Your task to perform on an android device: Open Wikipedia Image 0: 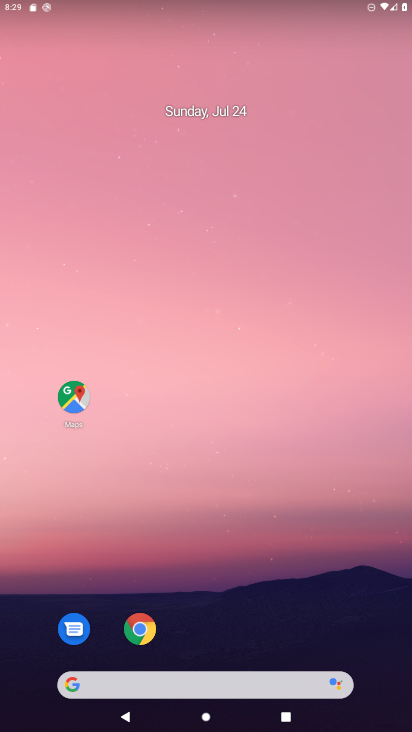
Step 0: drag from (403, 644) to (167, 12)
Your task to perform on an android device: Open Wikipedia Image 1: 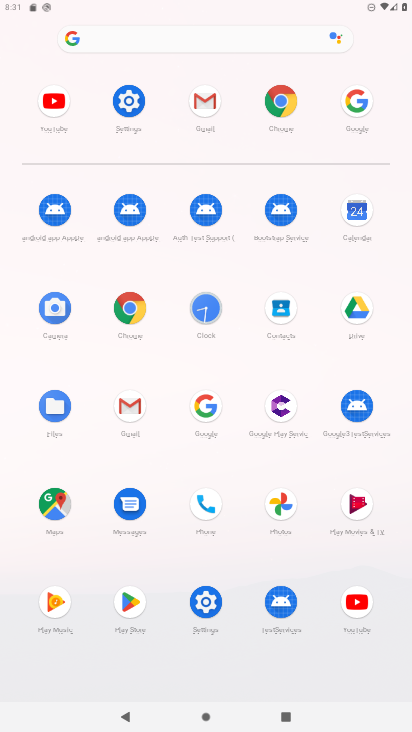
Step 1: click (208, 408)
Your task to perform on an android device: Open Wikipedia Image 2: 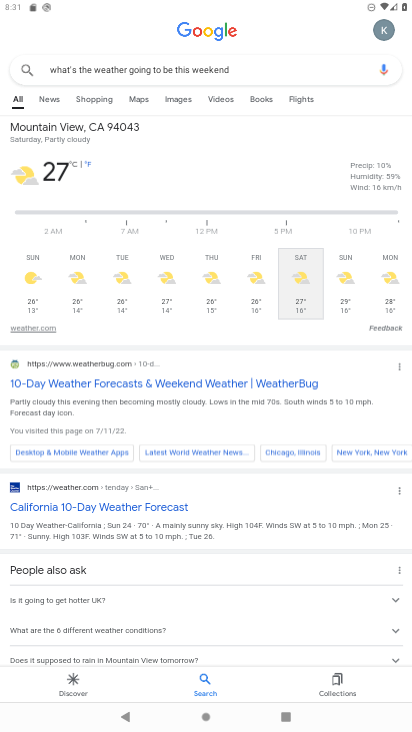
Step 2: press back button
Your task to perform on an android device: Open Wikipedia Image 3: 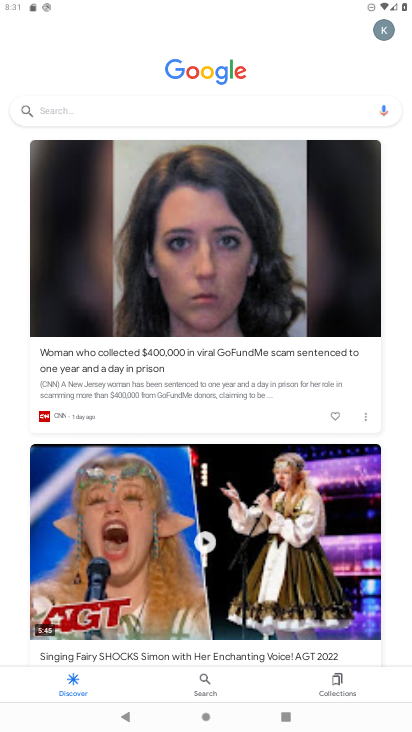
Step 3: click (70, 104)
Your task to perform on an android device: Open Wikipedia Image 4: 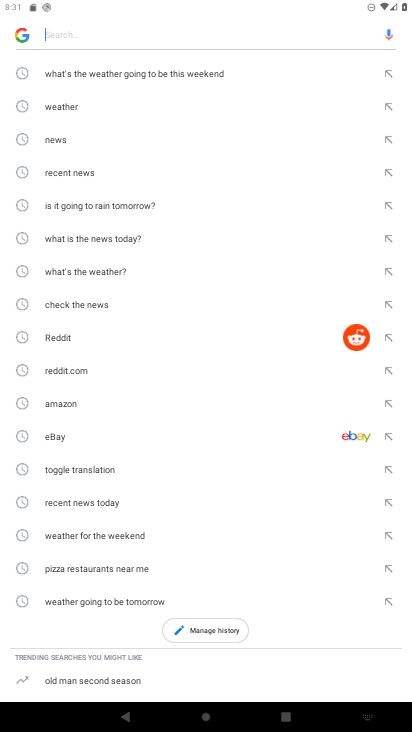
Step 4: type "Wikipedia"
Your task to perform on an android device: Open Wikipedia Image 5: 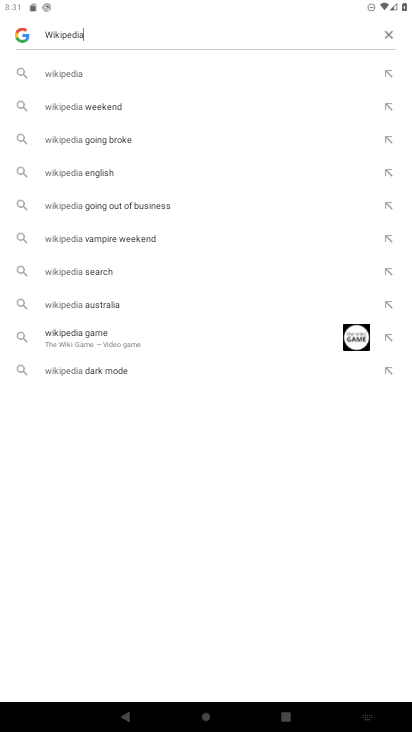
Step 5: click (68, 75)
Your task to perform on an android device: Open Wikipedia Image 6: 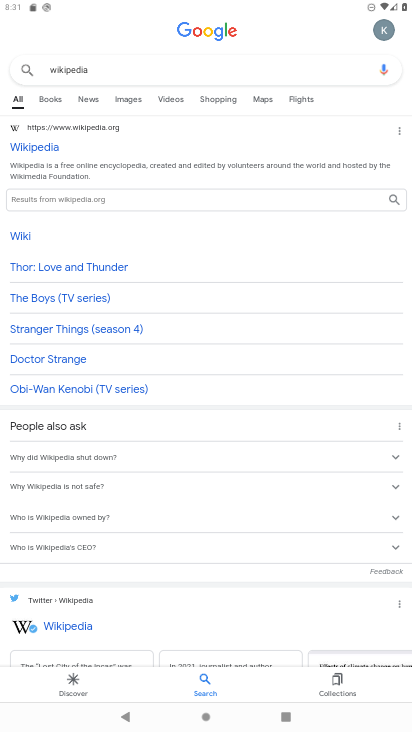
Step 6: task complete